Your task to perform on an android device: Open Wikipedia Image 0: 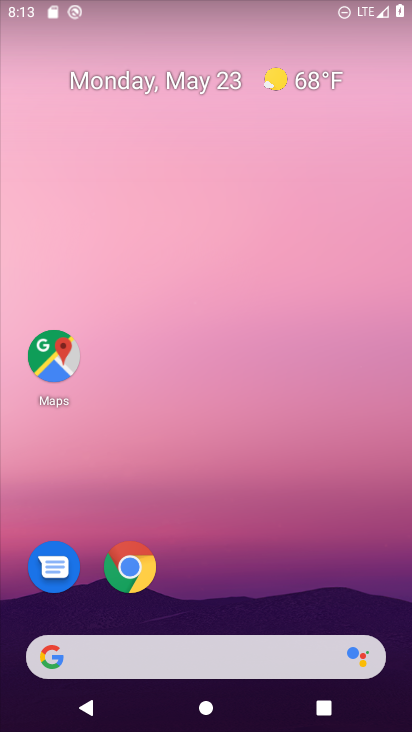
Step 0: click (129, 644)
Your task to perform on an android device: Open Wikipedia Image 1: 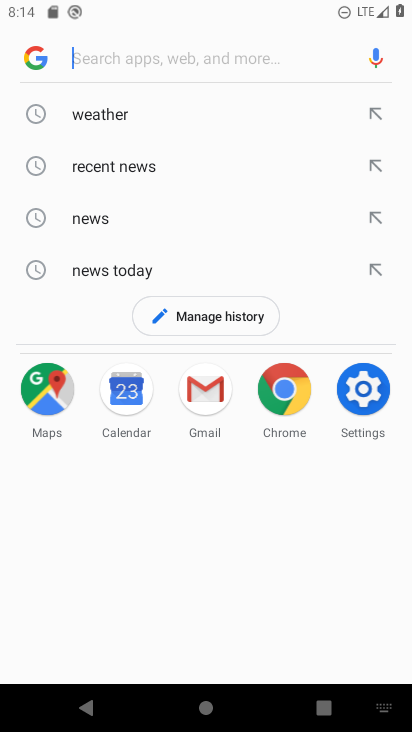
Step 1: type "wikipedia.com"
Your task to perform on an android device: Open Wikipedia Image 2: 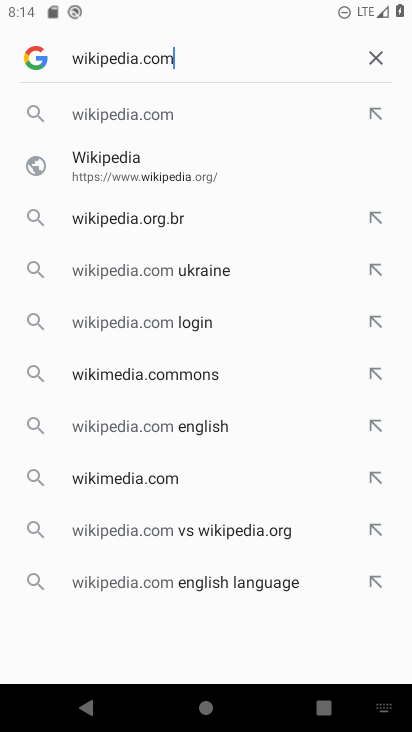
Step 2: click (139, 118)
Your task to perform on an android device: Open Wikipedia Image 3: 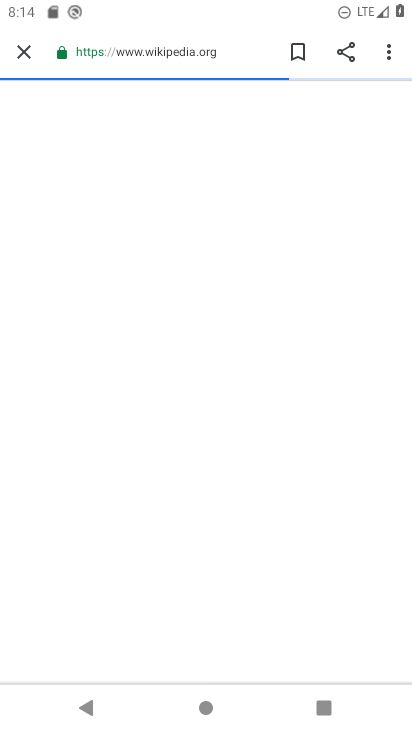
Step 3: task complete